Your task to perform on an android device: open app "Move to iOS" (install if not already installed) Image 0: 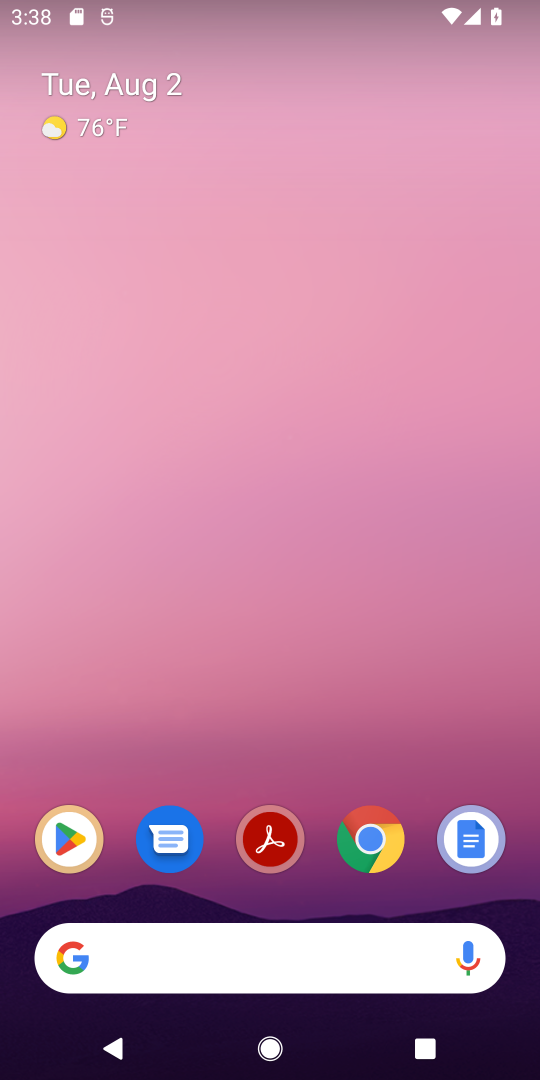
Step 0: click (93, 841)
Your task to perform on an android device: open app "Move to iOS" (install if not already installed) Image 1: 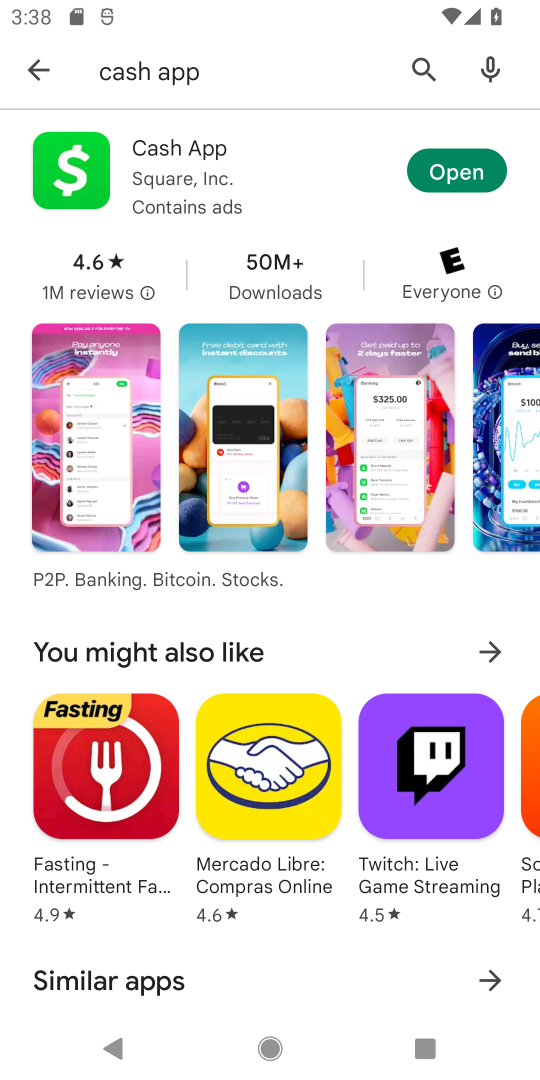
Step 1: click (416, 77)
Your task to perform on an android device: open app "Move to iOS" (install if not already installed) Image 2: 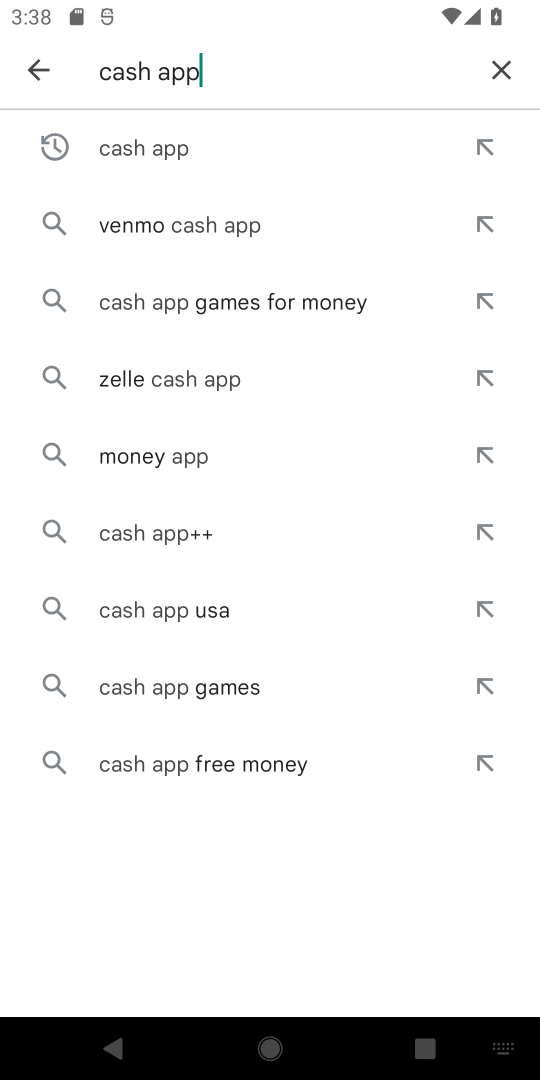
Step 2: click (498, 77)
Your task to perform on an android device: open app "Move to iOS" (install if not already installed) Image 3: 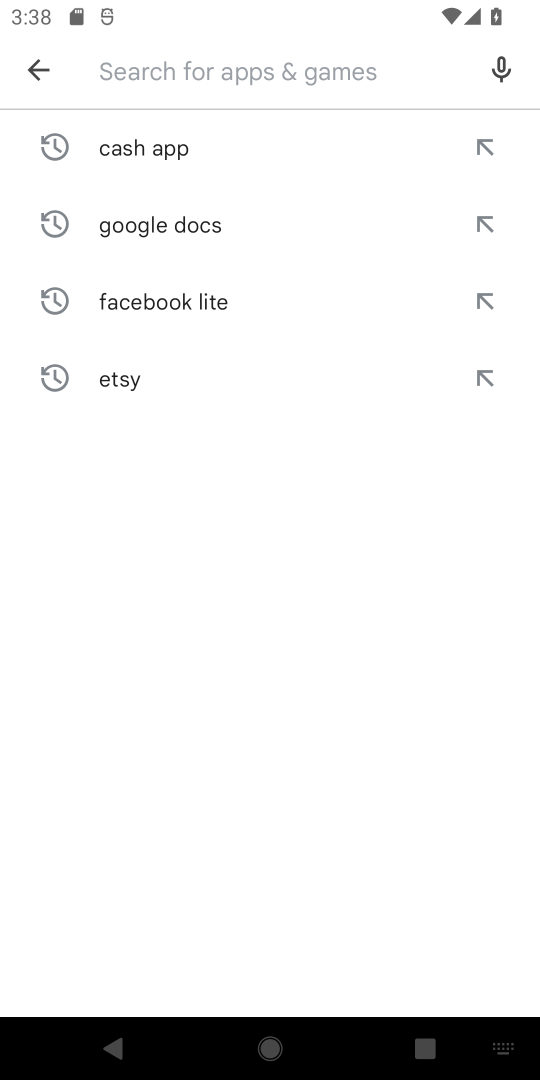
Step 3: type "move iso"
Your task to perform on an android device: open app "Move to iOS" (install if not already installed) Image 4: 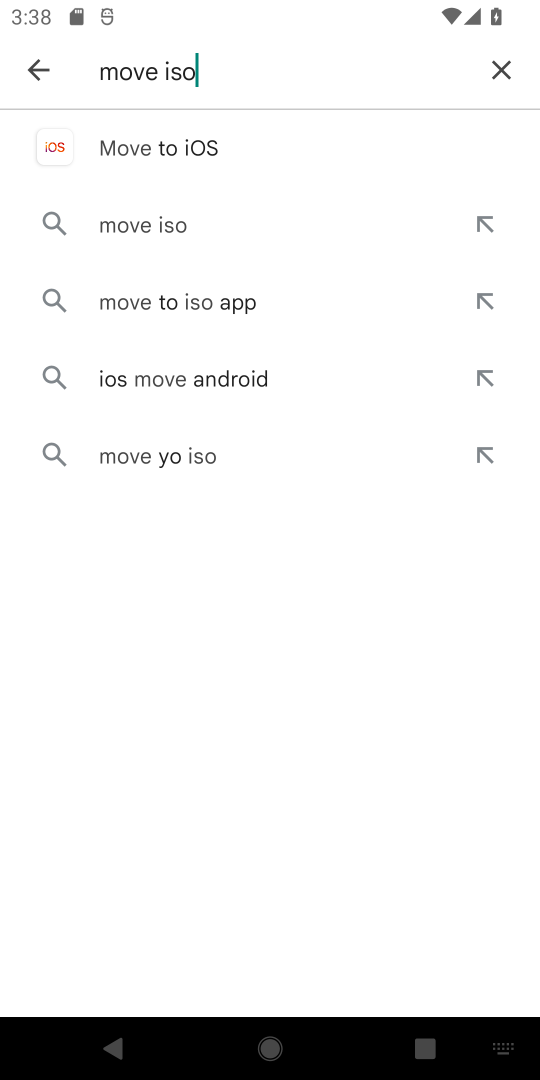
Step 4: click (169, 168)
Your task to perform on an android device: open app "Move to iOS" (install if not already installed) Image 5: 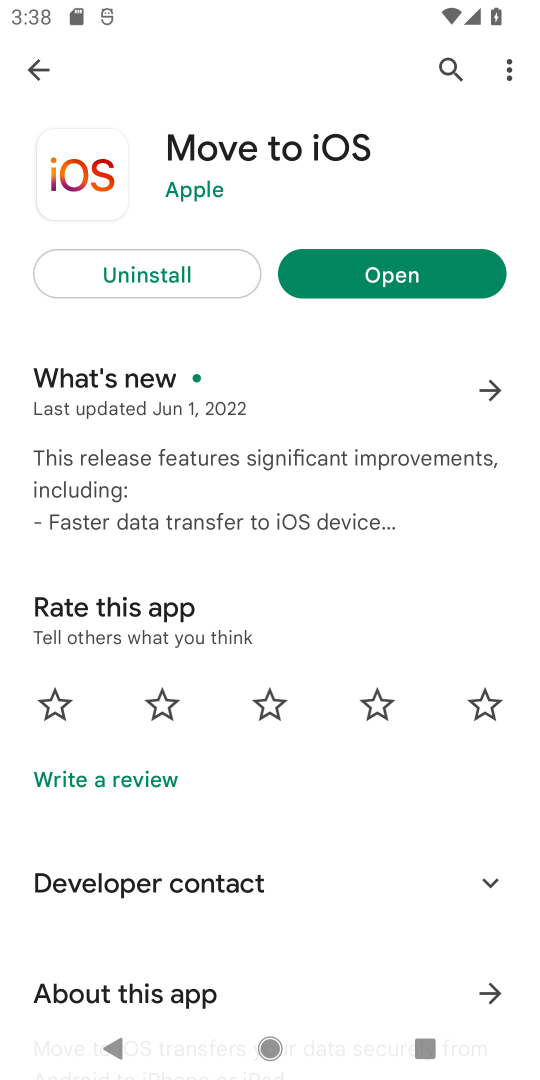
Step 5: click (414, 275)
Your task to perform on an android device: open app "Move to iOS" (install if not already installed) Image 6: 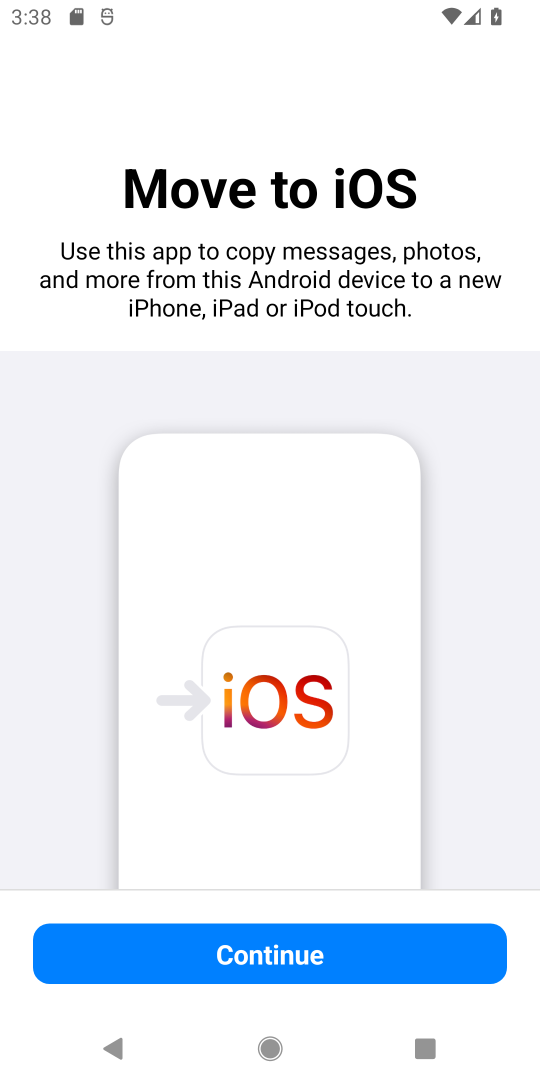
Step 6: click (394, 968)
Your task to perform on an android device: open app "Move to iOS" (install if not already installed) Image 7: 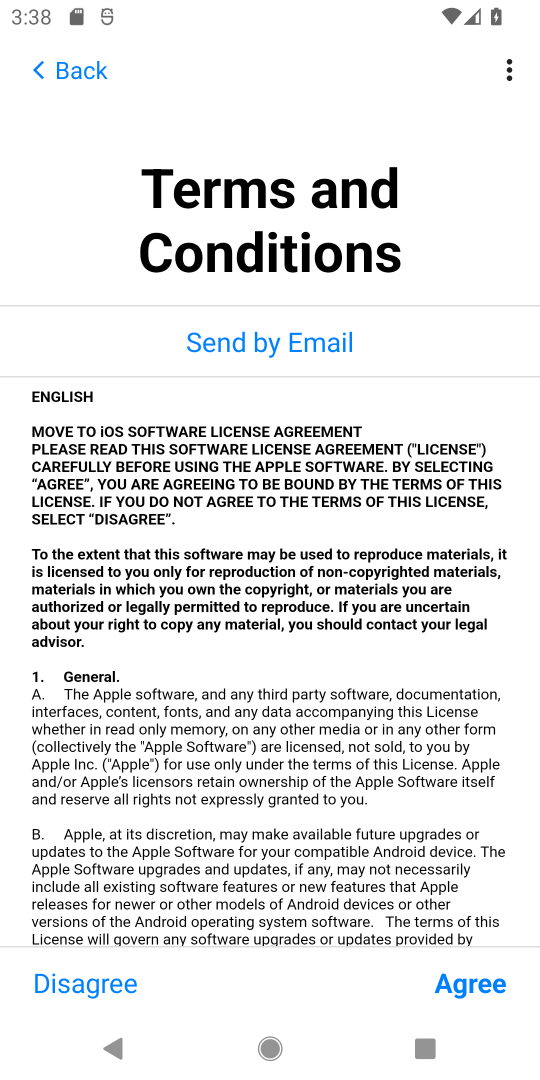
Step 7: click (469, 978)
Your task to perform on an android device: open app "Move to iOS" (install if not already installed) Image 8: 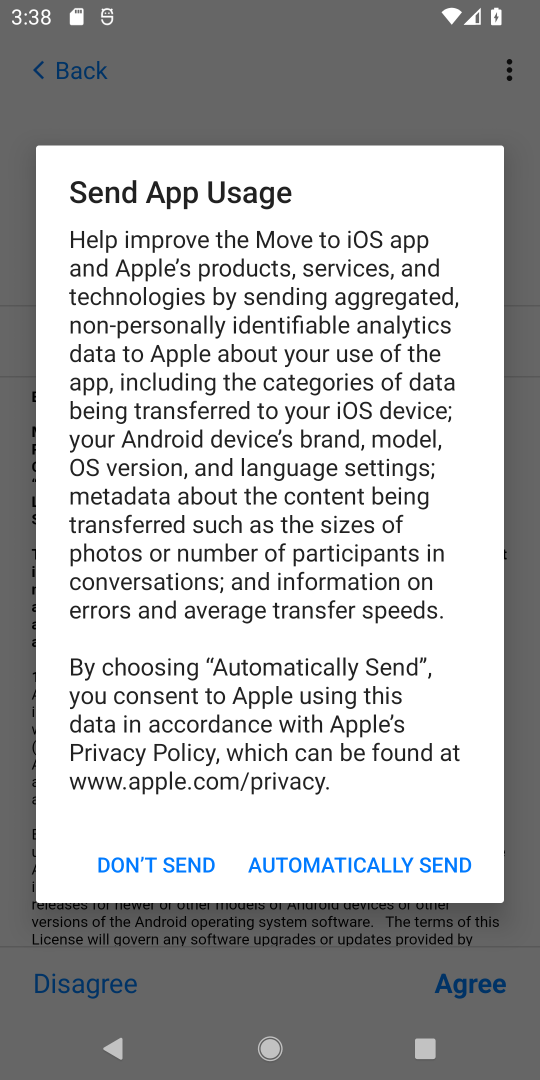
Step 8: click (426, 878)
Your task to perform on an android device: open app "Move to iOS" (install if not already installed) Image 9: 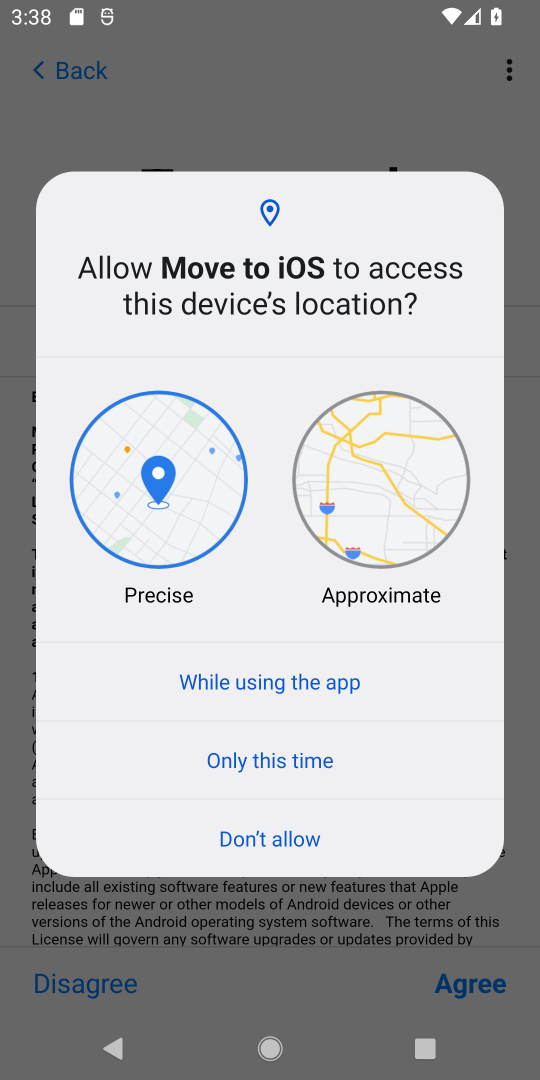
Step 9: click (308, 821)
Your task to perform on an android device: open app "Move to iOS" (install if not already installed) Image 10: 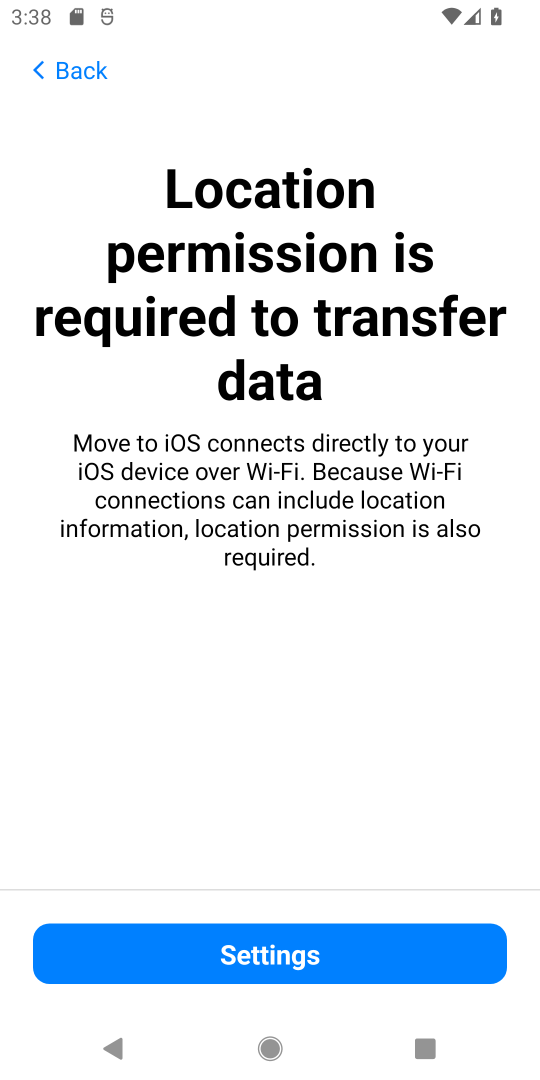
Step 10: task complete